Your task to perform on an android device: What's the weather? Image 0: 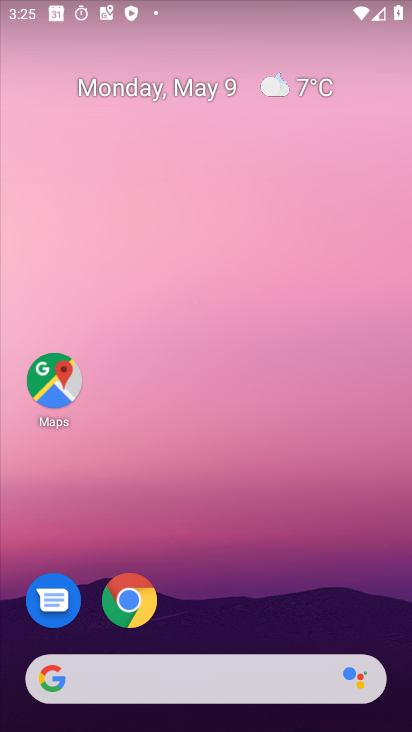
Step 0: click (302, 84)
Your task to perform on an android device: What's the weather? Image 1: 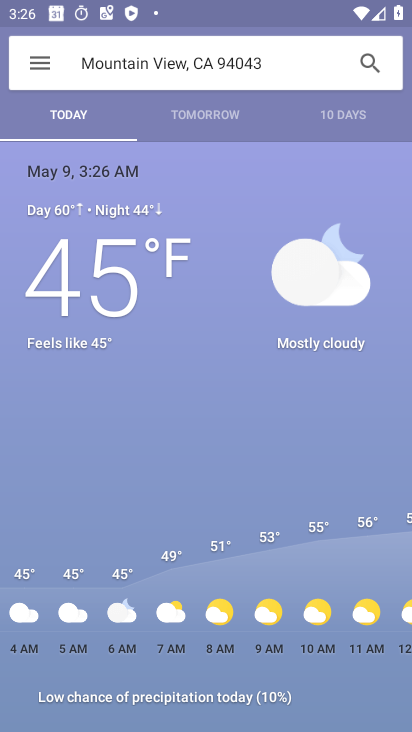
Step 1: task complete